Your task to perform on an android device: see sites visited before in the chrome app Image 0: 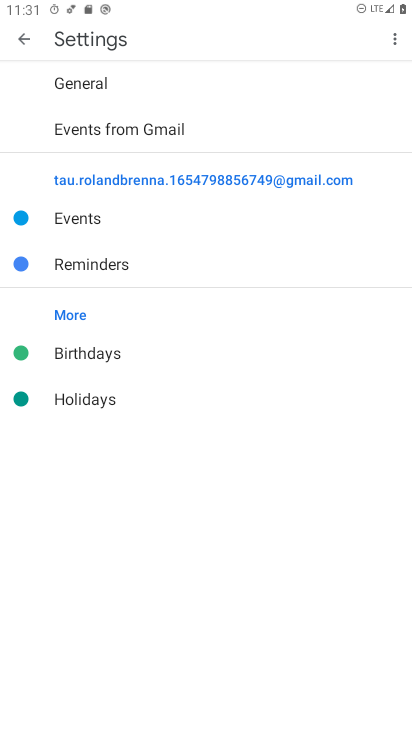
Step 0: press home button
Your task to perform on an android device: see sites visited before in the chrome app Image 1: 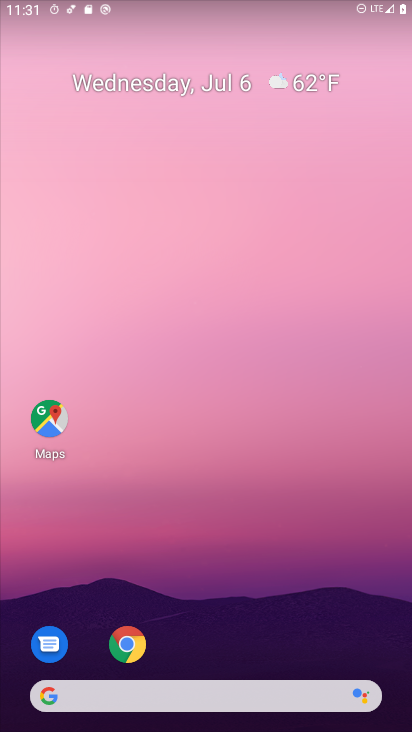
Step 1: click (132, 648)
Your task to perform on an android device: see sites visited before in the chrome app Image 2: 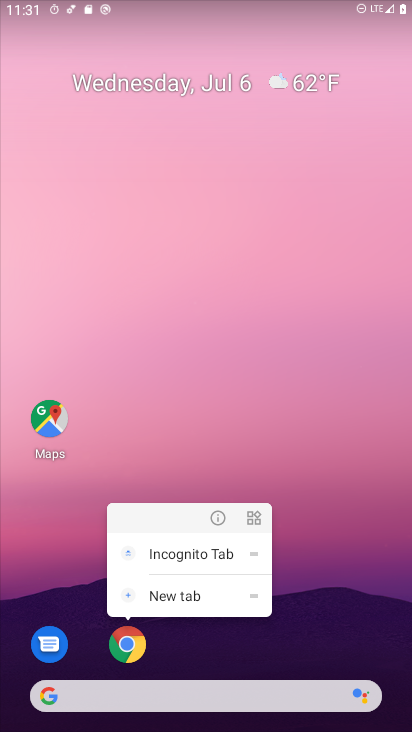
Step 2: click (133, 648)
Your task to perform on an android device: see sites visited before in the chrome app Image 3: 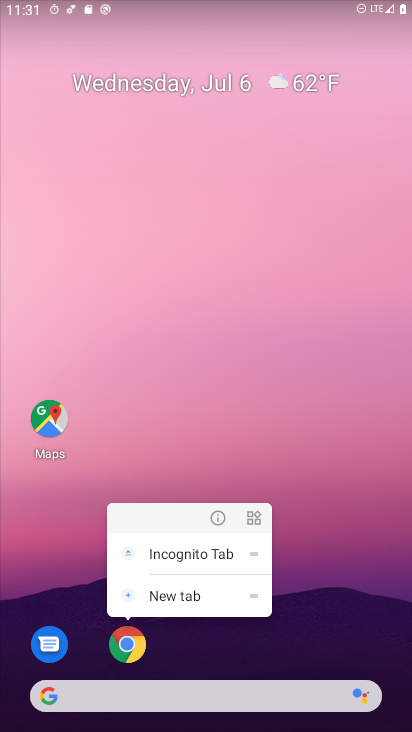
Step 3: click (282, 653)
Your task to perform on an android device: see sites visited before in the chrome app Image 4: 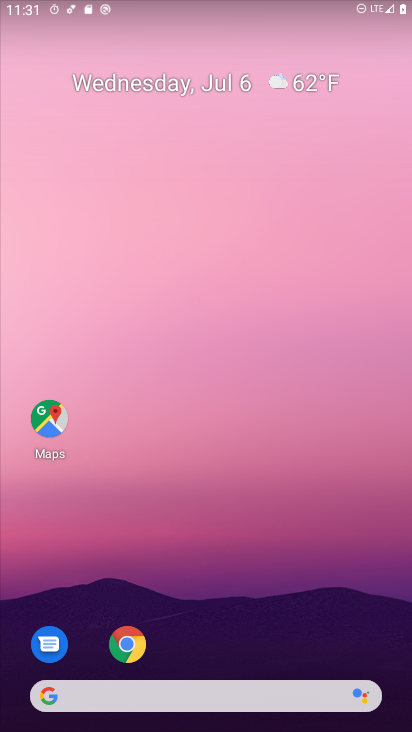
Step 4: drag from (281, 647) to (168, 58)
Your task to perform on an android device: see sites visited before in the chrome app Image 5: 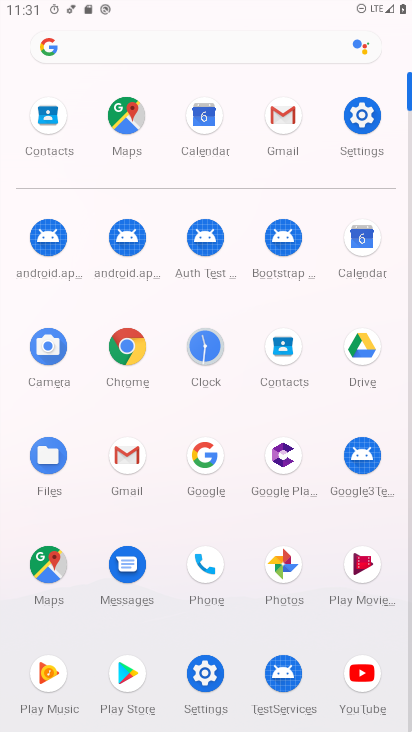
Step 5: click (128, 355)
Your task to perform on an android device: see sites visited before in the chrome app Image 6: 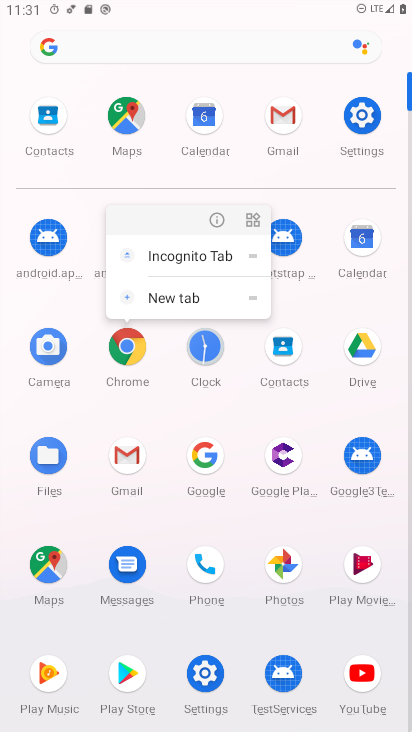
Step 6: click (128, 355)
Your task to perform on an android device: see sites visited before in the chrome app Image 7: 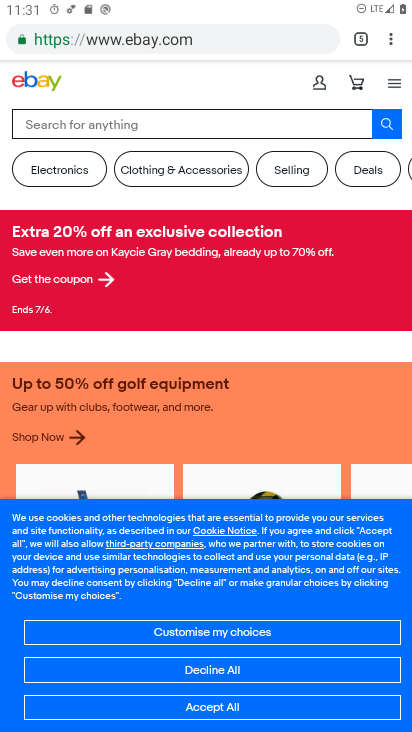
Step 7: task complete